Your task to perform on an android device: Open calendar and show me the fourth week of next month Image 0: 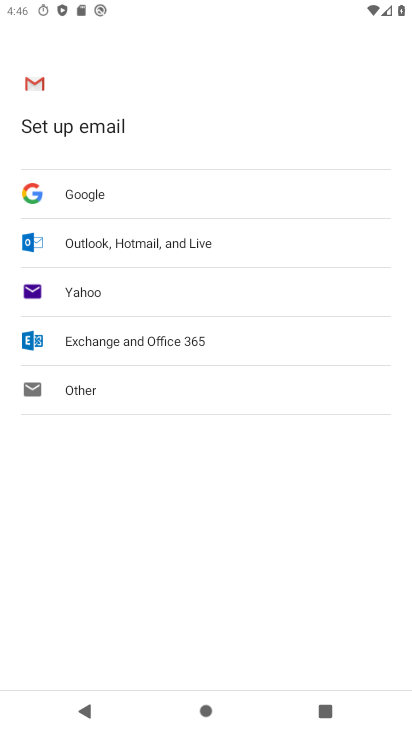
Step 0: press home button
Your task to perform on an android device: Open calendar and show me the fourth week of next month Image 1: 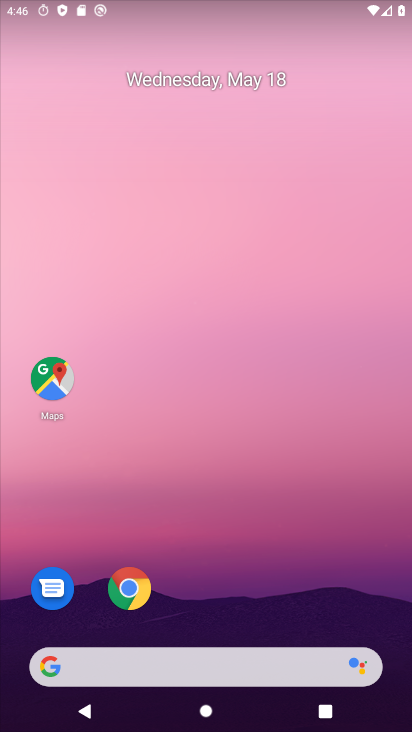
Step 1: drag from (226, 542) to (264, 97)
Your task to perform on an android device: Open calendar and show me the fourth week of next month Image 2: 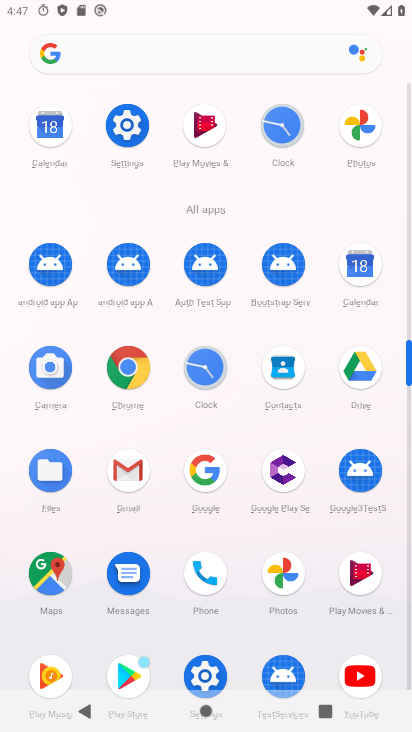
Step 2: click (352, 261)
Your task to perform on an android device: Open calendar and show me the fourth week of next month Image 3: 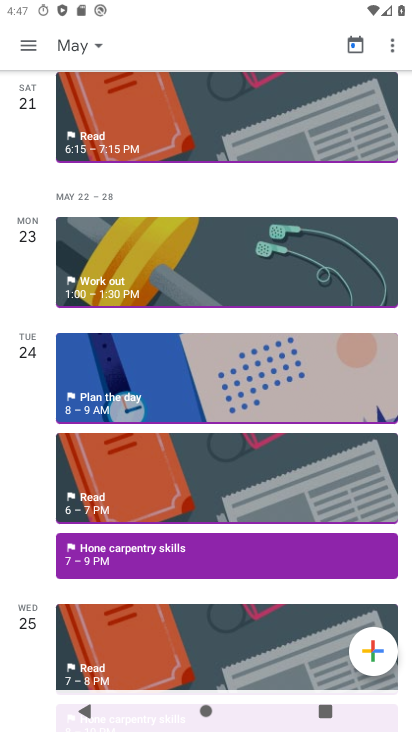
Step 3: click (81, 42)
Your task to perform on an android device: Open calendar and show me the fourth week of next month Image 4: 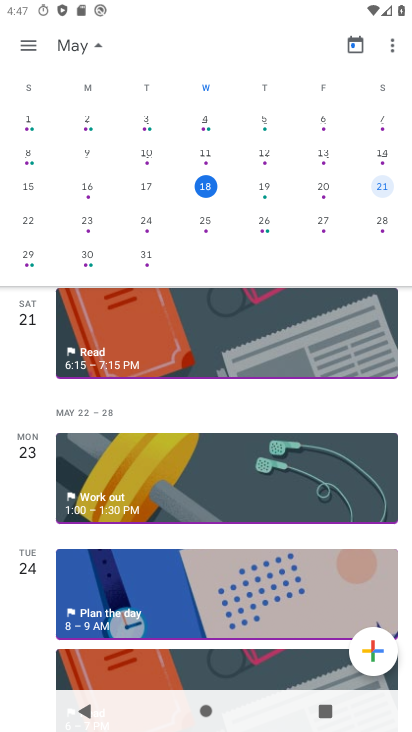
Step 4: drag from (355, 177) to (9, 152)
Your task to perform on an android device: Open calendar and show me the fourth week of next month Image 5: 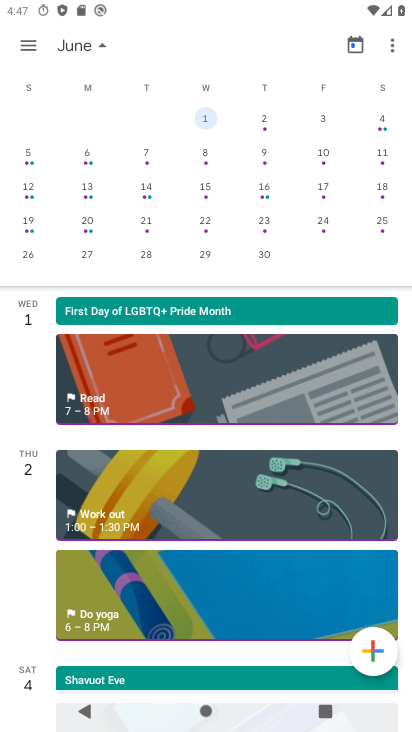
Step 5: click (84, 250)
Your task to perform on an android device: Open calendar and show me the fourth week of next month Image 6: 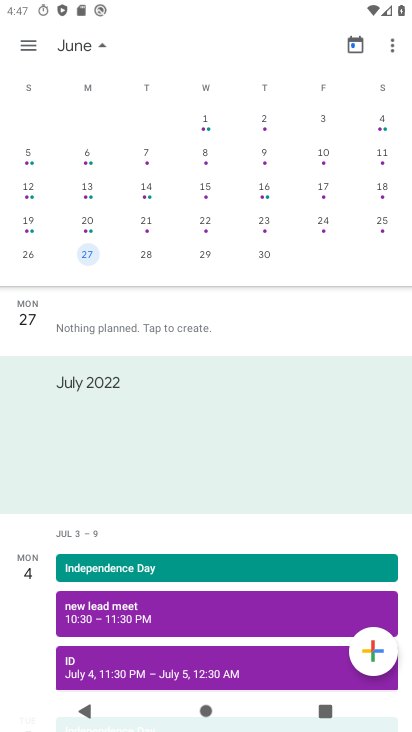
Step 6: task complete